Your task to perform on an android device: Open Maps and search for coffee Image 0: 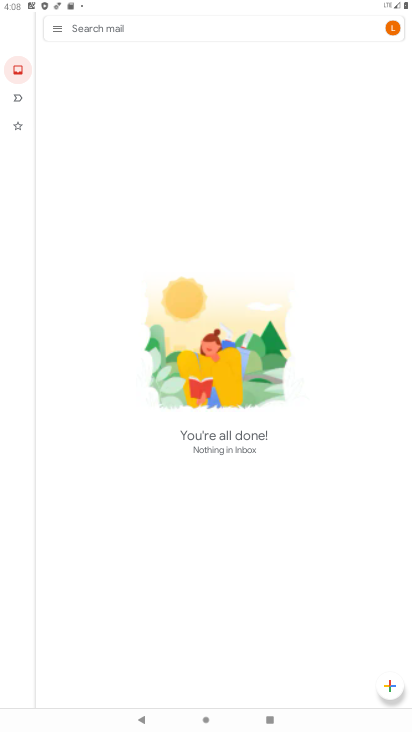
Step 0: press home button
Your task to perform on an android device: Open Maps and search for coffee Image 1: 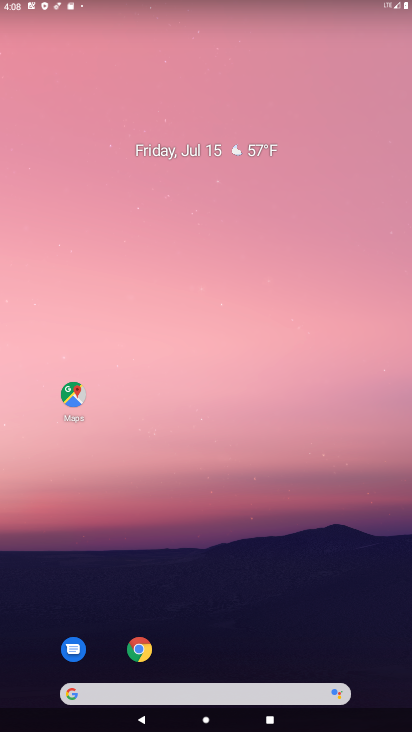
Step 1: drag from (246, 641) to (275, 170)
Your task to perform on an android device: Open Maps and search for coffee Image 2: 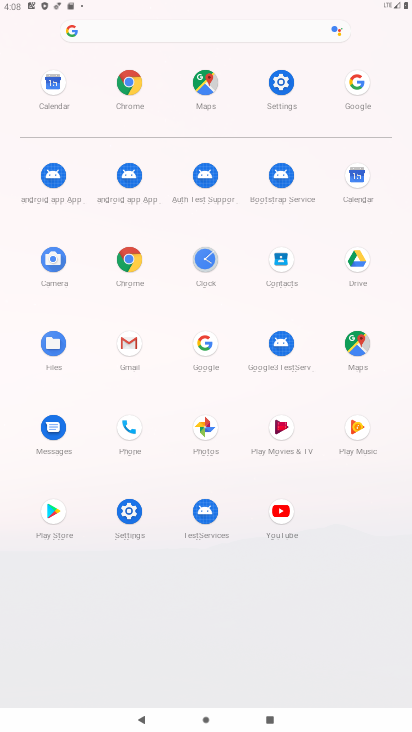
Step 2: click (364, 341)
Your task to perform on an android device: Open Maps and search for coffee Image 3: 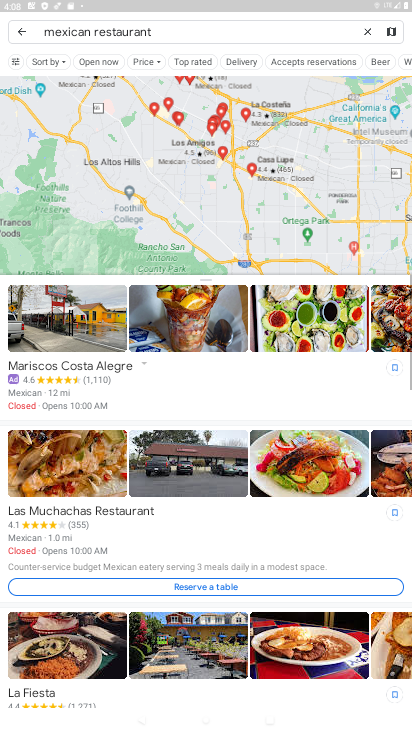
Step 3: click (369, 28)
Your task to perform on an android device: Open Maps and search for coffee Image 4: 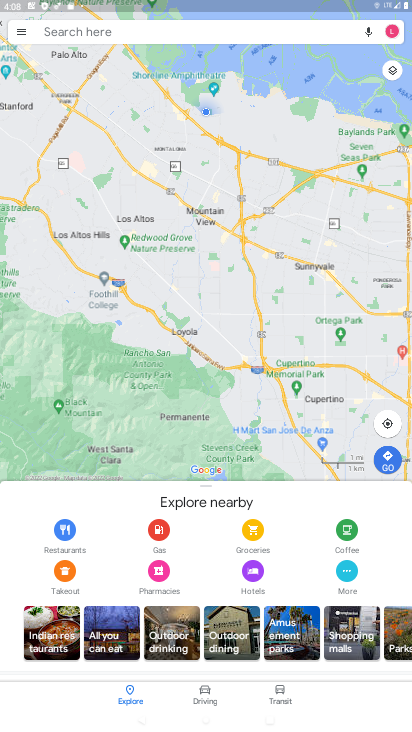
Step 4: click (244, 39)
Your task to perform on an android device: Open Maps and search for coffee Image 5: 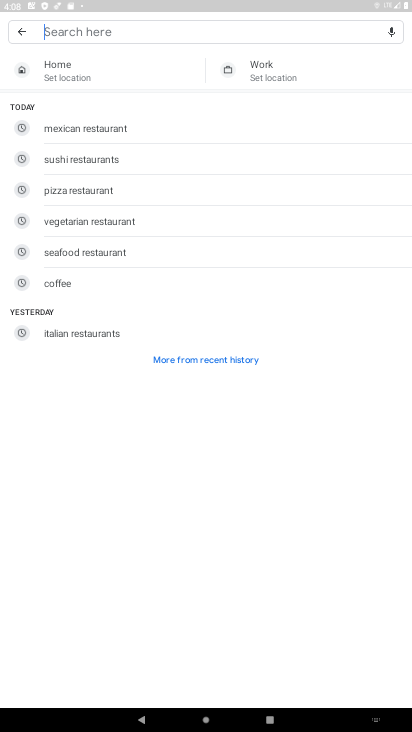
Step 5: type "coffee"
Your task to perform on an android device: Open Maps and search for coffee Image 6: 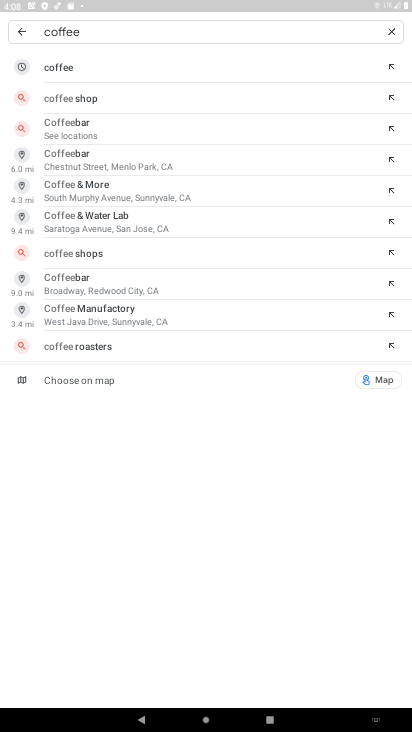
Step 6: click (65, 67)
Your task to perform on an android device: Open Maps and search for coffee Image 7: 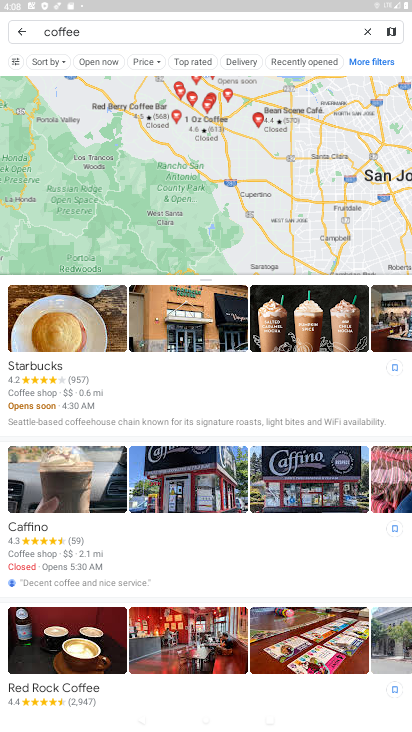
Step 7: task complete